Your task to perform on an android device: Open Google Chrome and click the shortcut for Amazon.com Image 0: 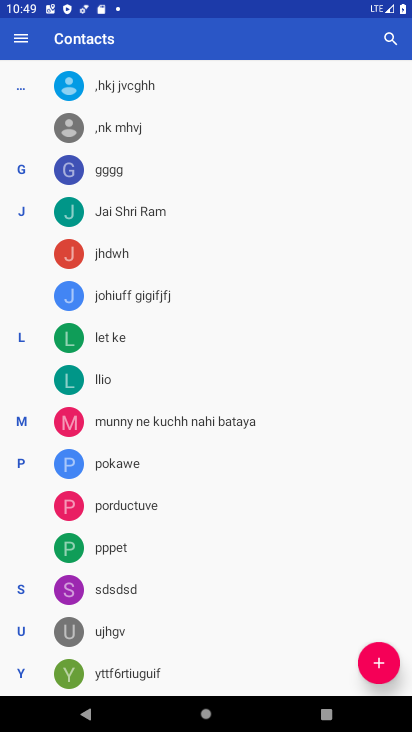
Step 0: press home button
Your task to perform on an android device: Open Google Chrome and click the shortcut for Amazon.com Image 1: 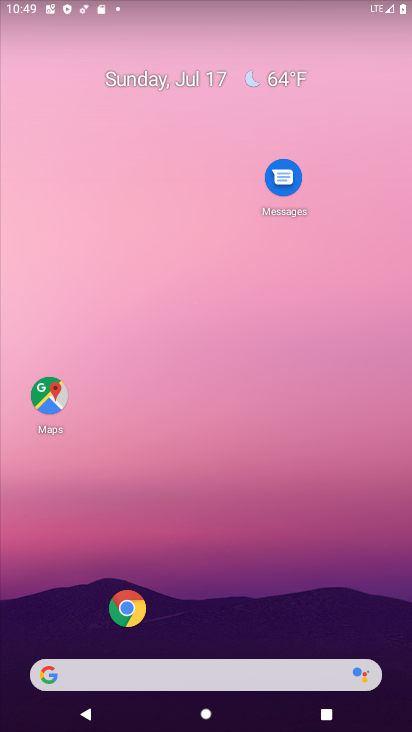
Step 1: click (119, 615)
Your task to perform on an android device: Open Google Chrome and click the shortcut for Amazon.com Image 2: 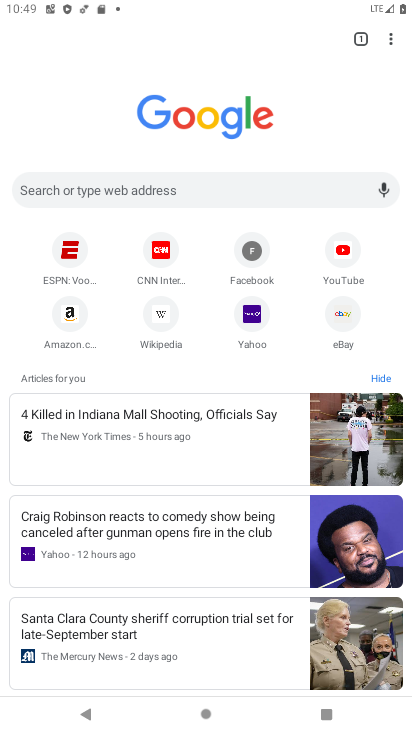
Step 2: click (64, 330)
Your task to perform on an android device: Open Google Chrome and click the shortcut for Amazon.com Image 3: 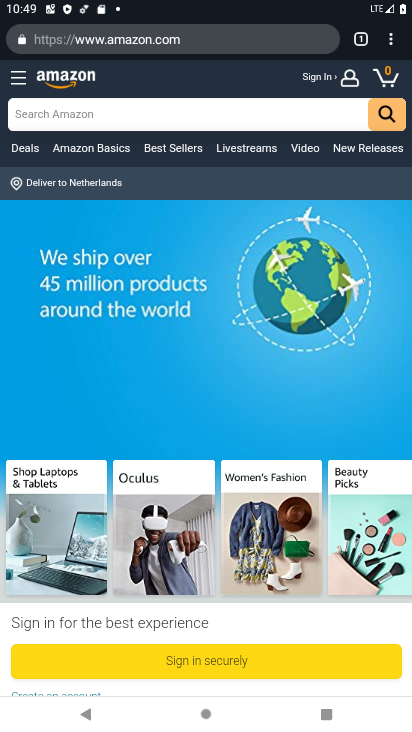
Step 3: task complete